Your task to perform on an android device: Play the last video I watched on Youtube Image 0: 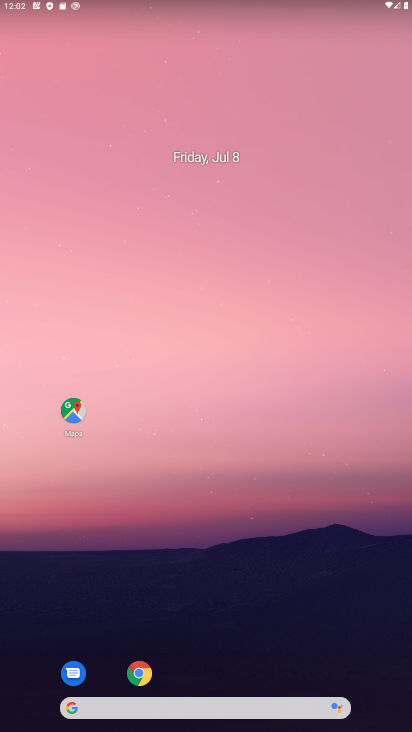
Step 0: drag from (219, 668) to (214, 79)
Your task to perform on an android device: Play the last video I watched on Youtube Image 1: 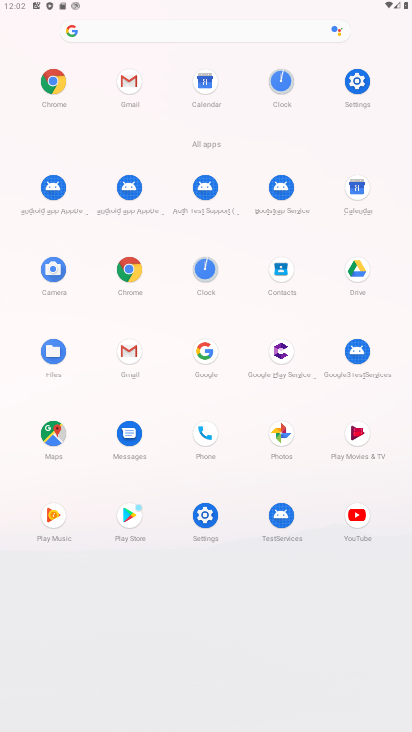
Step 1: click (359, 513)
Your task to perform on an android device: Play the last video I watched on Youtube Image 2: 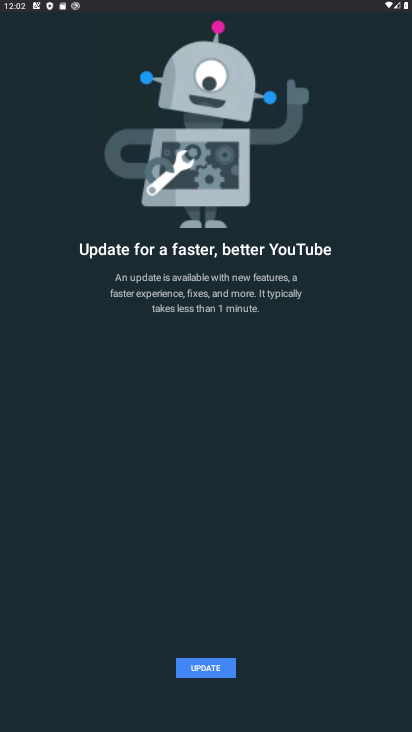
Step 2: click (209, 673)
Your task to perform on an android device: Play the last video I watched on Youtube Image 3: 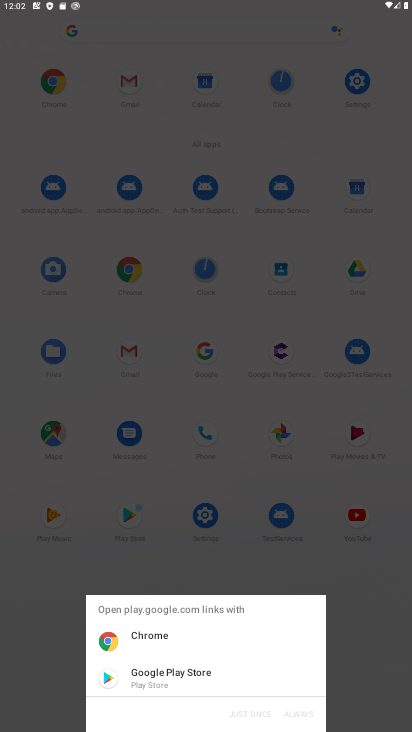
Step 3: click (203, 673)
Your task to perform on an android device: Play the last video I watched on Youtube Image 4: 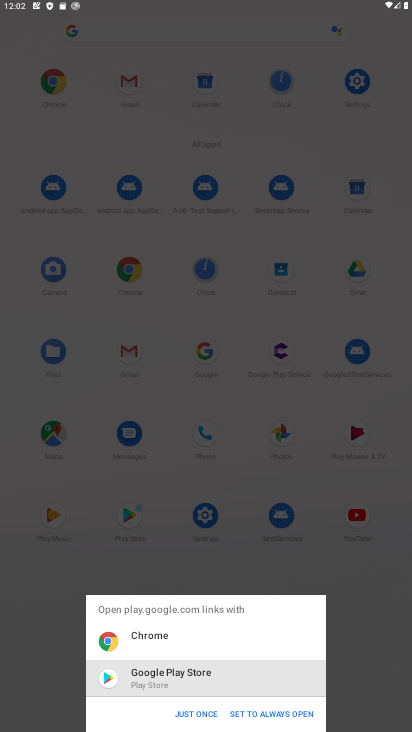
Step 4: click (200, 713)
Your task to perform on an android device: Play the last video I watched on Youtube Image 5: 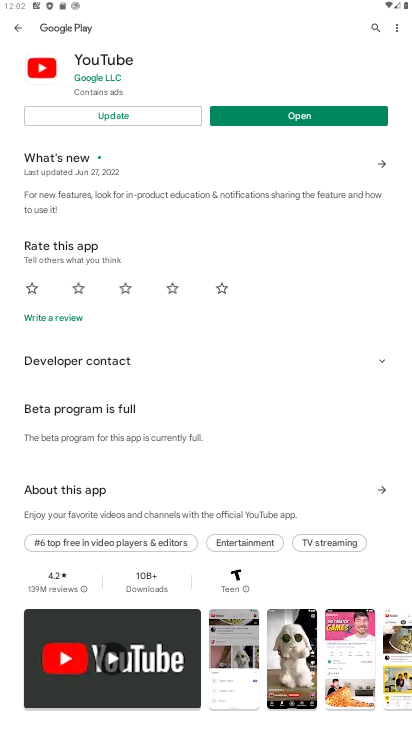
Step 5: click (129, 113)
Your task to perform on an android device: Play the last video I watched on Youtube Image 6: 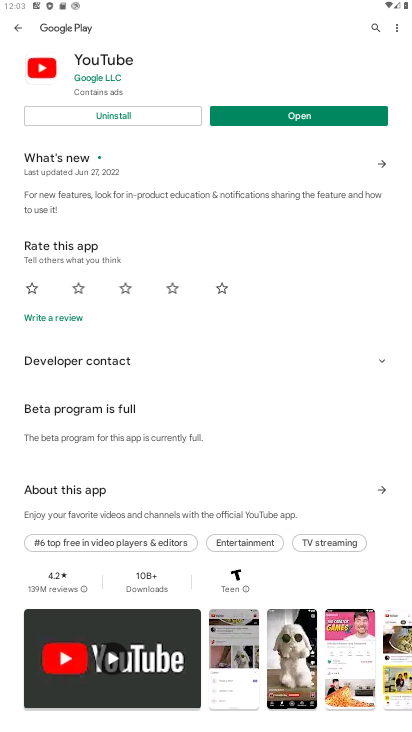
Step 6: click (291, 116)
Your task to perform on an android device: Play the last video I watched on Youtube Image 7: 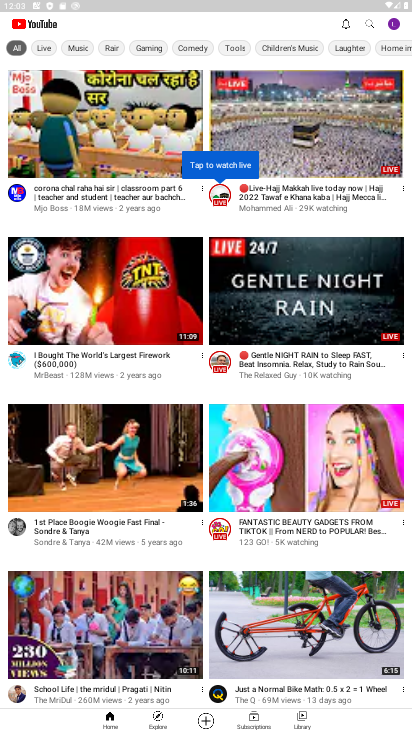
Step 7: click (299, 717)
Your task to perform on an android device: Play the last video I watched on Youtube Image 8: 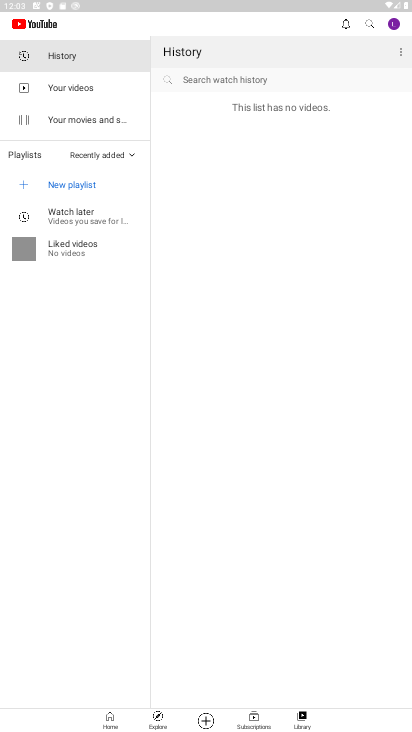
Step 8: task complete